Your task to perform on an android device: Show me popular videos on Youtube Image 0: 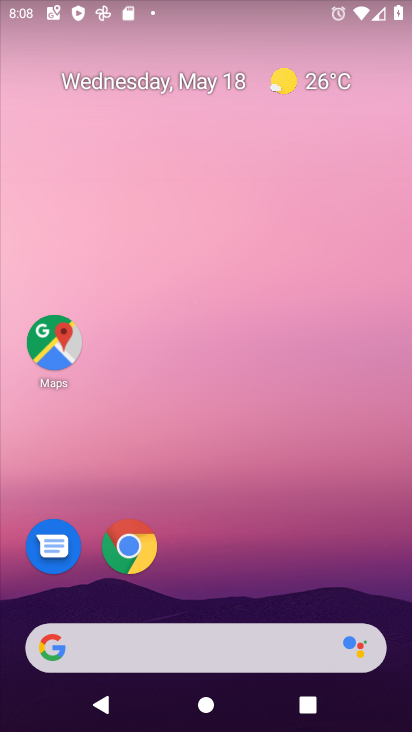
Step 0: drag from (388, 633) to (303, 47)
Your task to perform on an android device: Show me popular videos on Youtube Image 1: 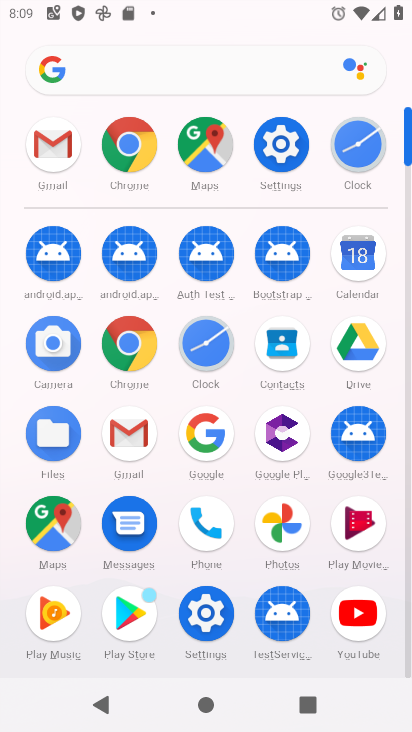
Step 1: click (370, 609)
Your task to perform on an android device: Show me popular videos on Youtube Image 2: 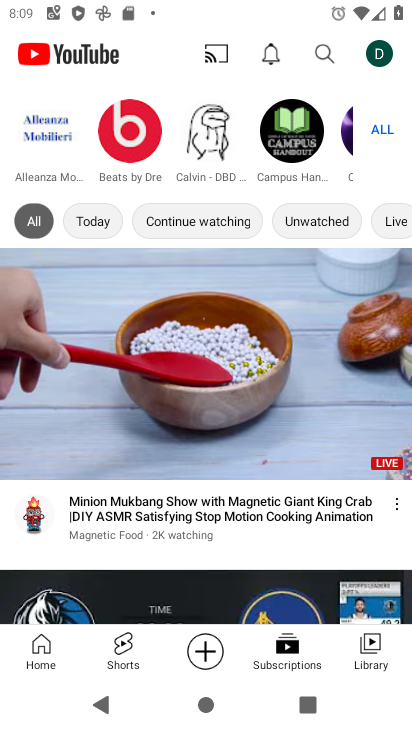
Step 2: task complete